Your task to perform on an android device: toggle priority inbox in the gmail app Image 0: 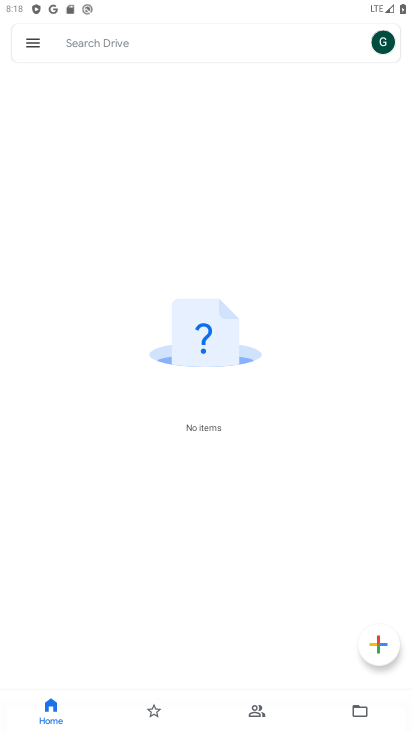
Step 0: press home button
Your task to perform on an android device: toggle priority inbox in the gmail app Image 1: 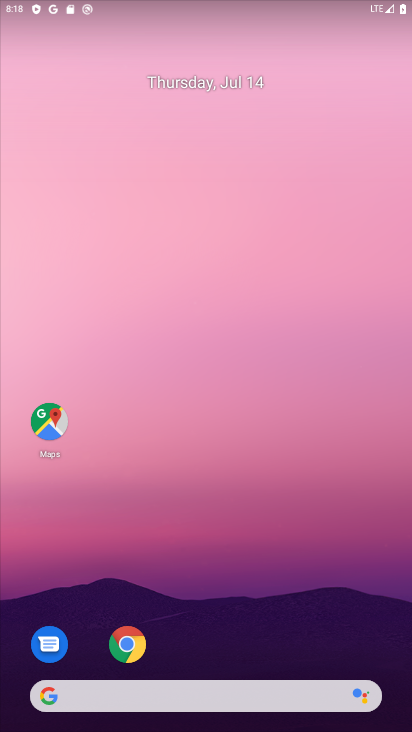
Step 1: drag from (187, 680) to (234, 177)
Your task to perform on an android device: toggle priority inbox in the gmail app Image 2: 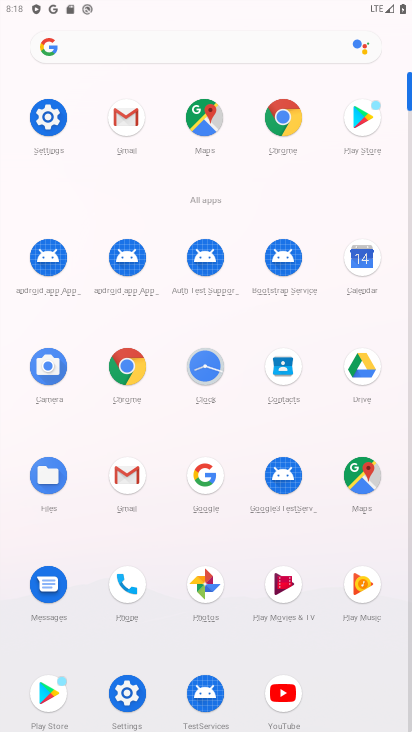
Step 2: click (137, 473)
Your task to perform on an android device: toggle priority inbox in the gmail app Image 3: 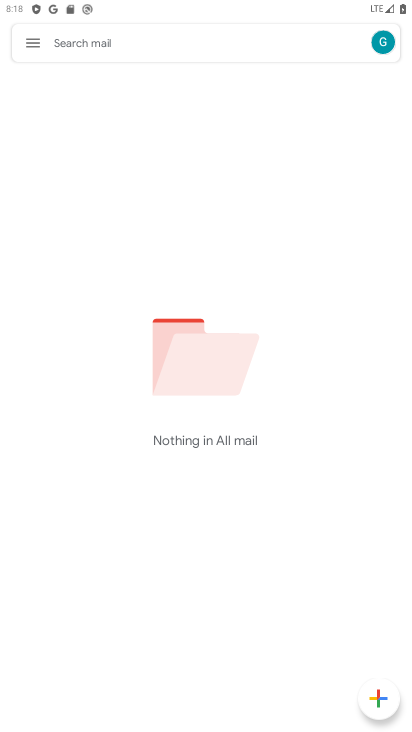
Step 3: click (38, 58)
Your task to perform on an android device: toggle priority inbox in the gmail app Image 4: 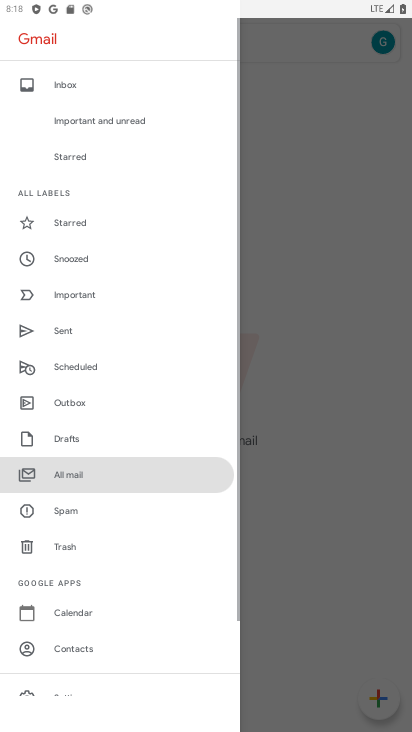
Step 4: drag from (87, 693) to (151, 297)
Your task to perform on an android device: toggle priority inbox in the gmail app Image 5: 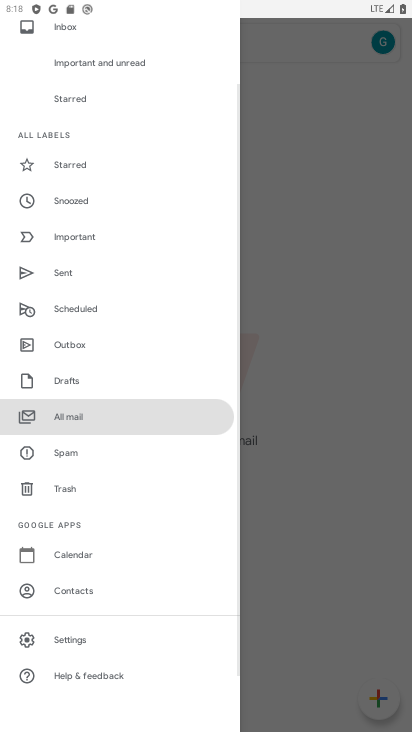
Step 5: click (88, 635)
Your task to perform on an android device: toggle priority inbox in the gmail app Image 6: 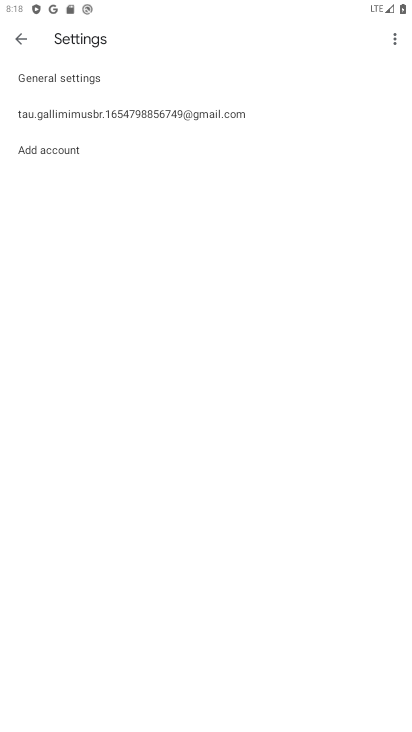
Step 6: click (172, 107)
Your task to perform on an android device: toggle priority inbox in the gmail app Image 7: 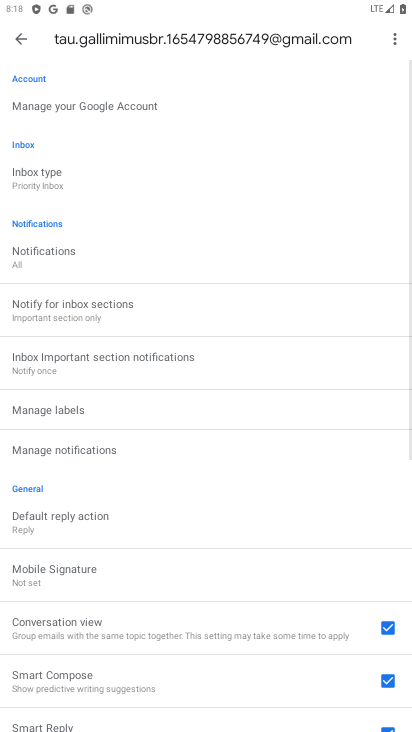
Step 7: drag from (111, 521) to (122, 394)
Your task to perform on an android device: toggle priority inbox in the gmail app Image 8: 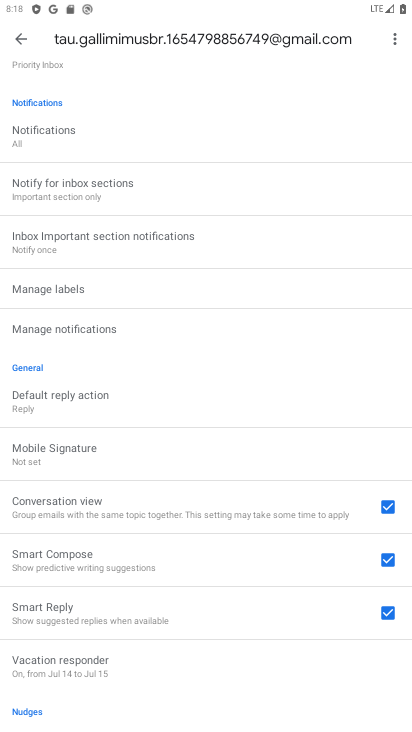
Step 8: drag from (150, 151) to (113, 545)
Your task to perform on an android device: toggle priority inbox in the gmail app Image 9: 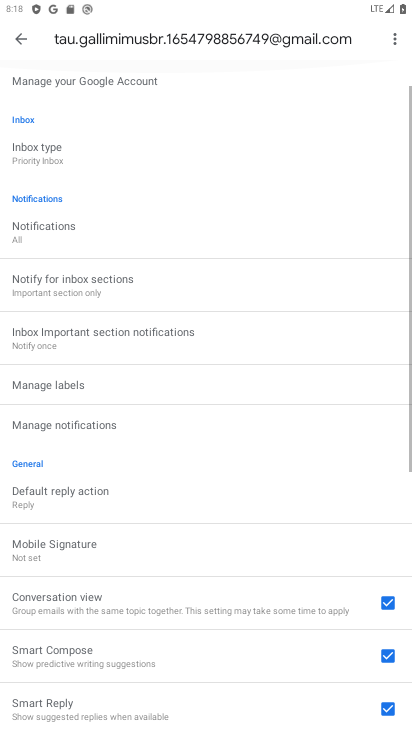
Step 9: click (169, 179)
Your task to perform on an android device: toggle priority inbox in the gmail app Image 10: 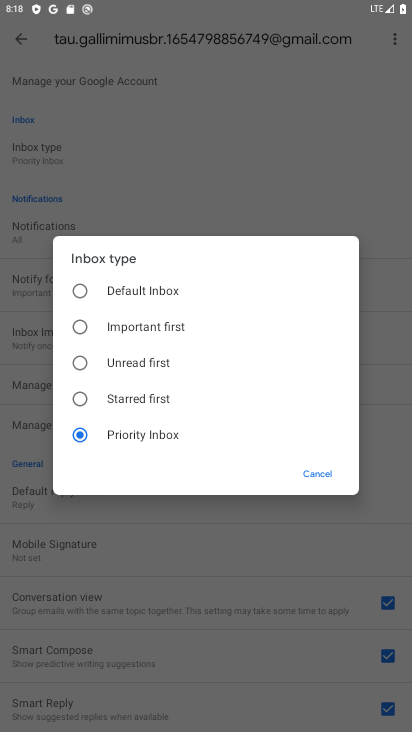
Step 10: click (88, 289)
Your task to perform on an android device: toggle priority inbox in the gmail app Image 11: 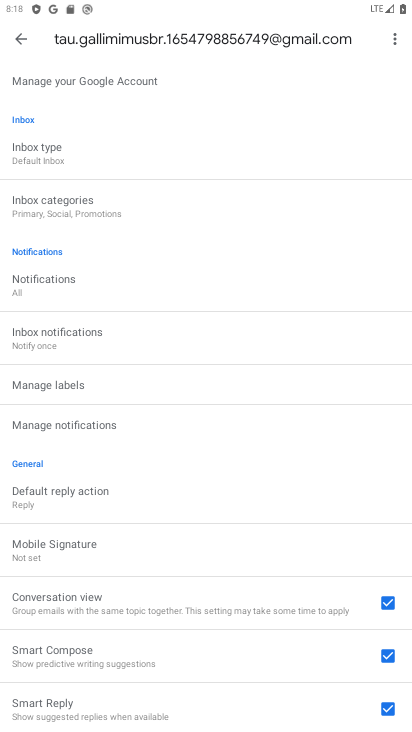
Step 11: task complete